Your task to perform on an android device: check google app version Image 0: 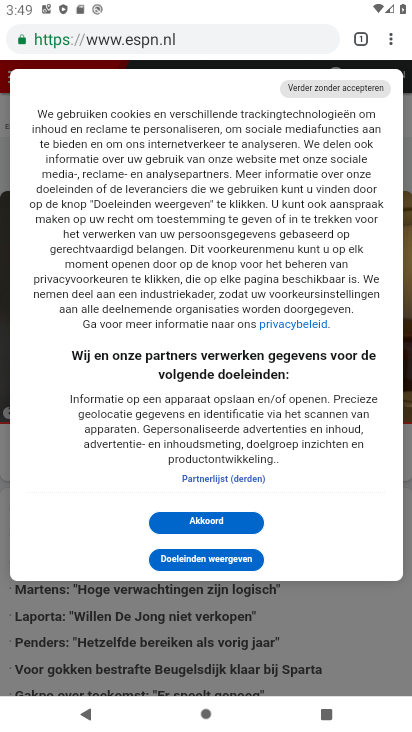
Step 0: press home button
Your task to perform on an android device: check google app version Image 1: 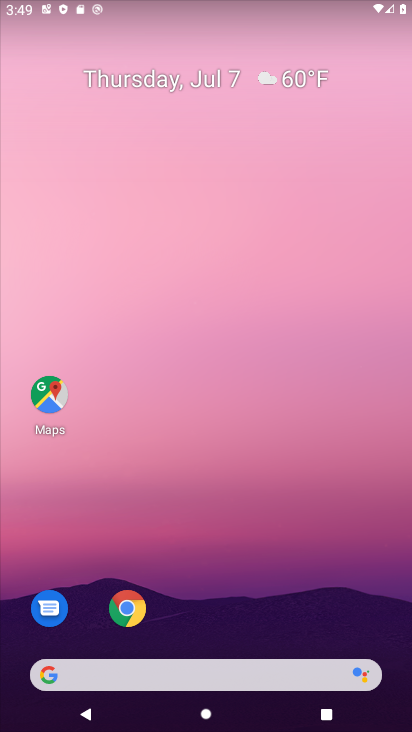
Step 1: drag from (212, 662) to (186, 193)
Your task to perform on an android device: check google app version Image 2: 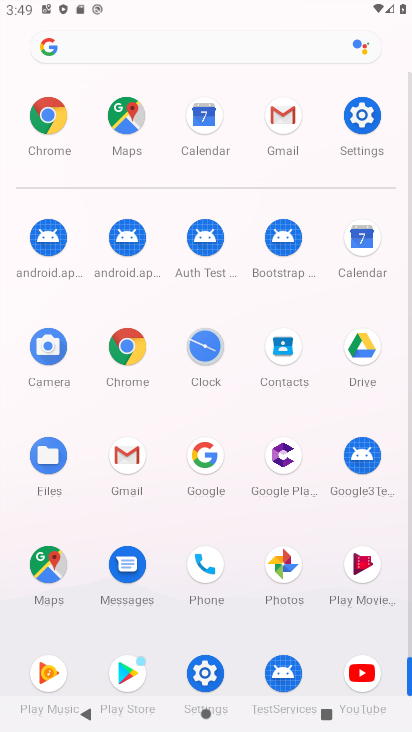
Step 2: click (214, 450)
Your task to perform on an android device: check google app version Image 3: 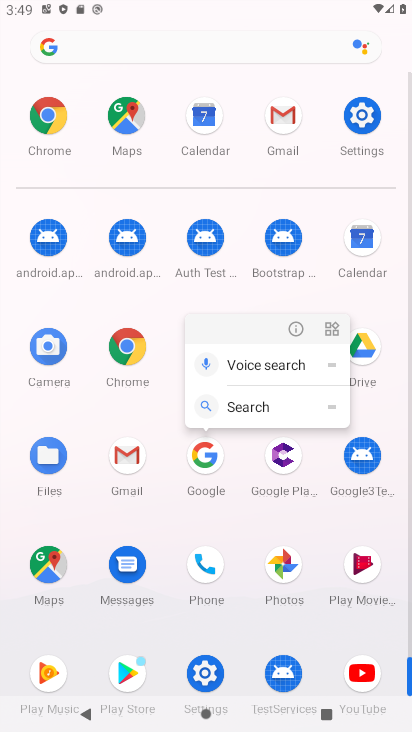
Step 3: click (292, 333)
Your task to perform on an android device: check google app version Image 4: 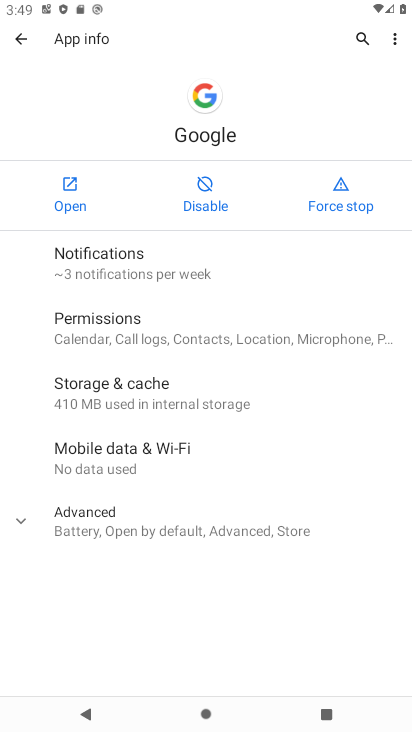
Step 4: click (193, 537)
Your task to perform on an android device: check google app version Image 5: 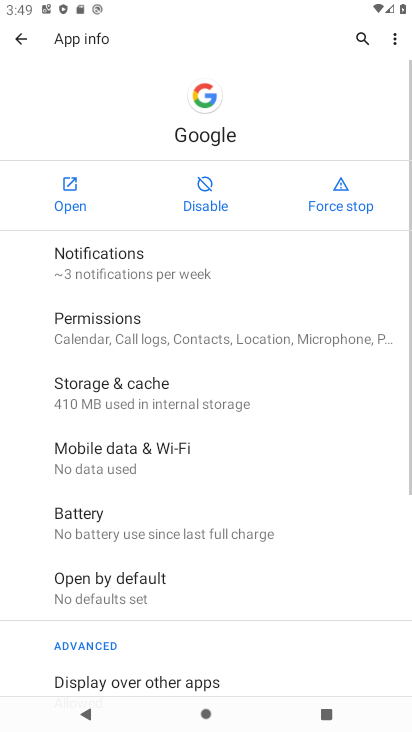
Step 5: task complete